Your task to perform on an android device: open device folders in google photos Image 0: 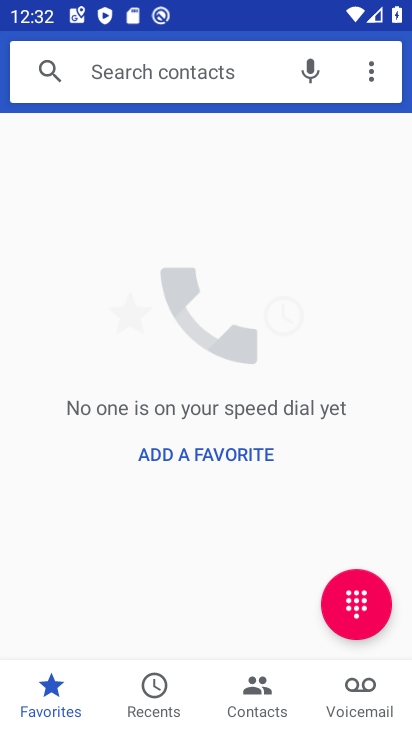
Step 0: press home button
Your task to perform on an android device: open device folders in google photos Image 1: 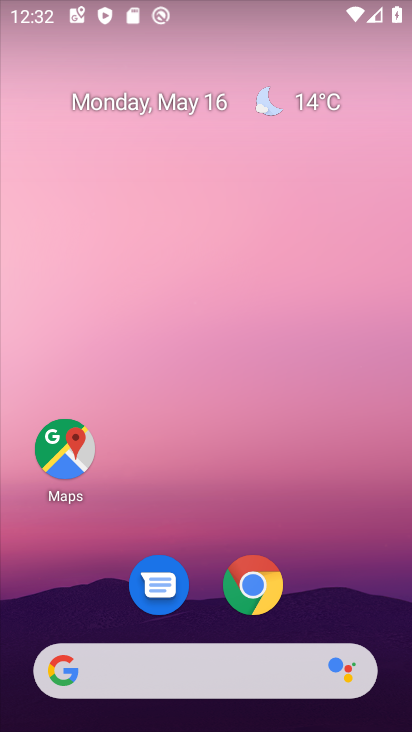
Step 1: drag from (223, 531) to (253, 55)
Your task to perform on an android device: open device folders in google photos Image 2: 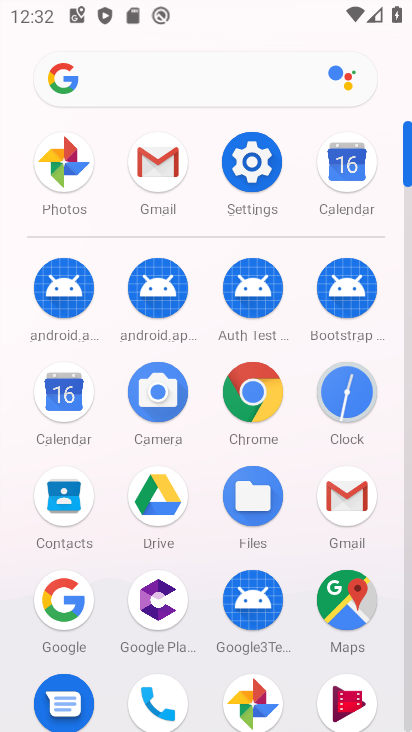
Step 2: click (67, 164)
Your task to perform on an android device: open device folders in google photos Image 3: 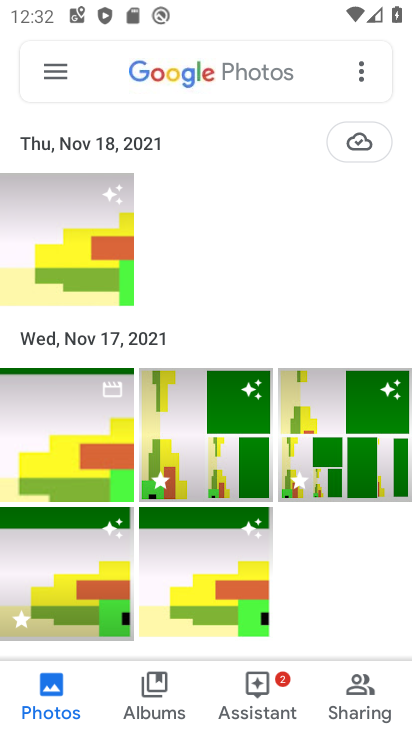
Step 3: click (57, 57)
Your task to perform on an android device: open device folders in google photos Image 4: 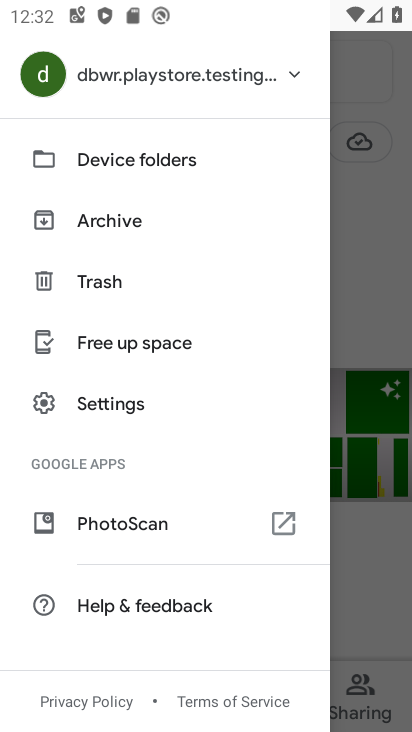
Step 4: click (110, 155)
Your task to perform on an android device: open device folders in google photos Image 5: 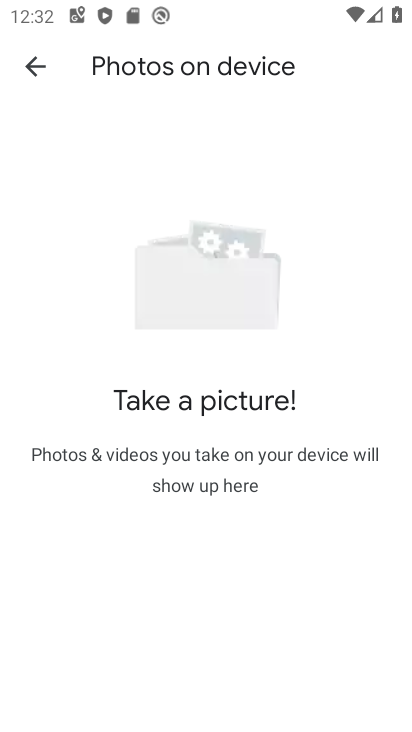
Step 5: task complete